Your task to perform on an android device: Do I have any events tomorrow? Image 0: 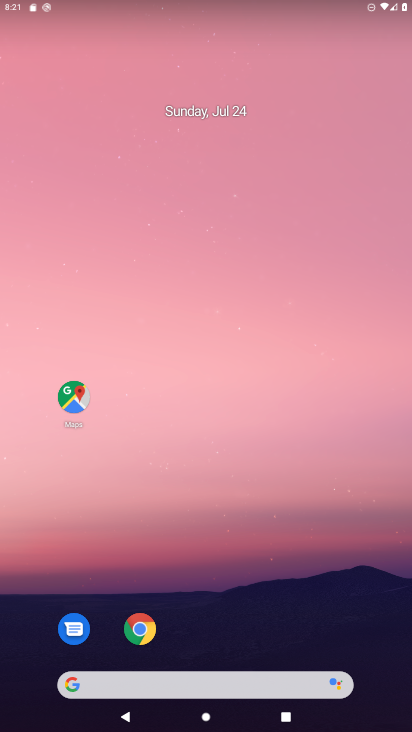
Step 0: drag from (354, 643) to (167, 10)
Your task to perform on an android device: Do I have any events tomorrow? Image 1: 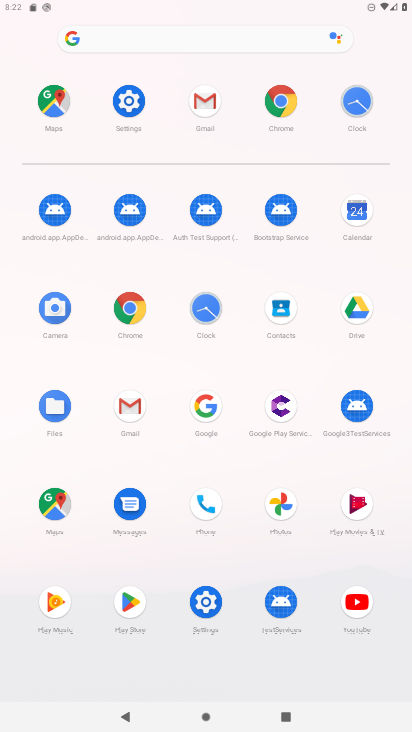
Step 1: click (368, 208)
Your task to perform on an android device: Do I have any events tomorrow? Image 2: 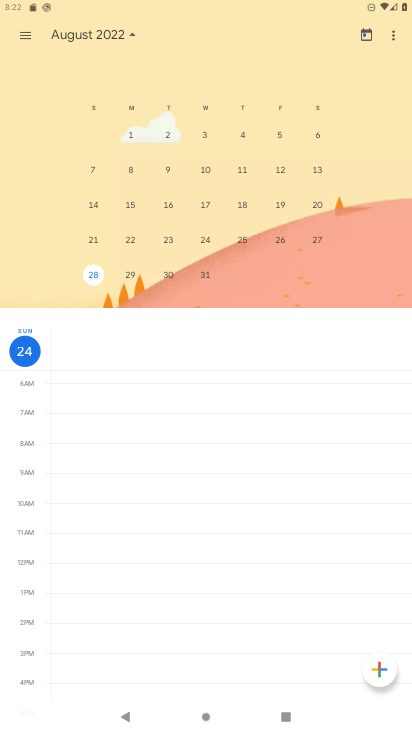
Step 2: task complete